Your task to perform on an android device: check battery use Image 0: 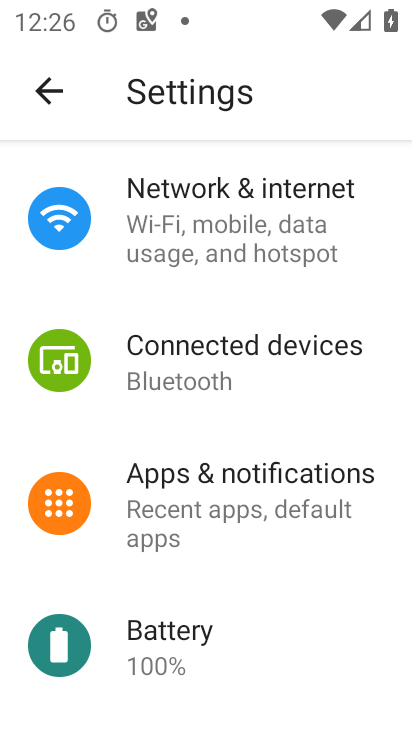
Step 0: click (179, 640)
Your task to perform on an android device: check battery use Image 1: 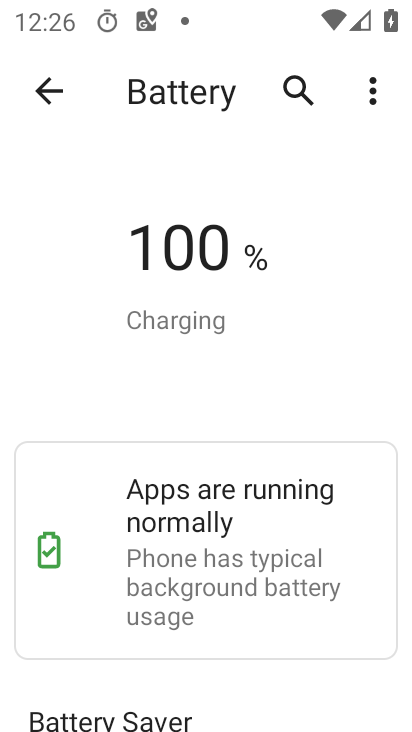
Step 1: click (360, 81)
Your task to perform on an android device: check battery use Image 2: 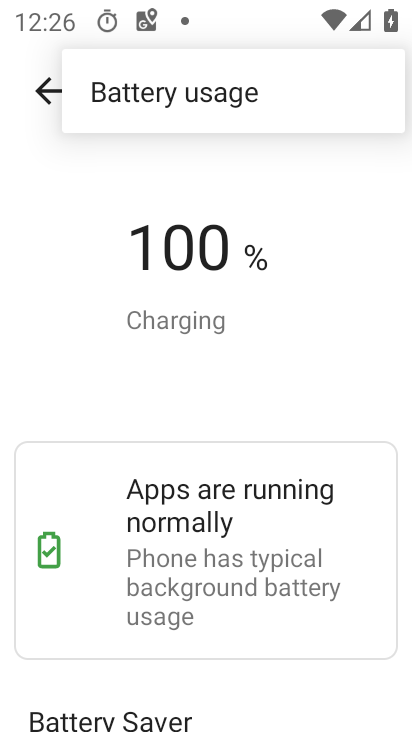
Step 2: click (270, 91)
Your task to perform on an android device: check battery use Image 3: 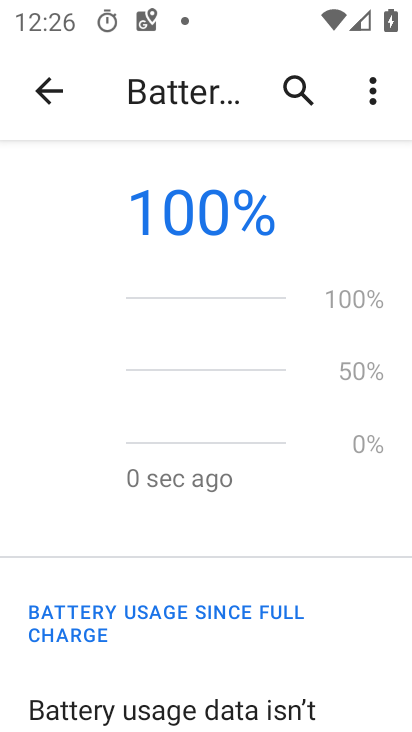
Step 3: click (360, 76)
Your task to perform on an android device: check battery use Image 4: 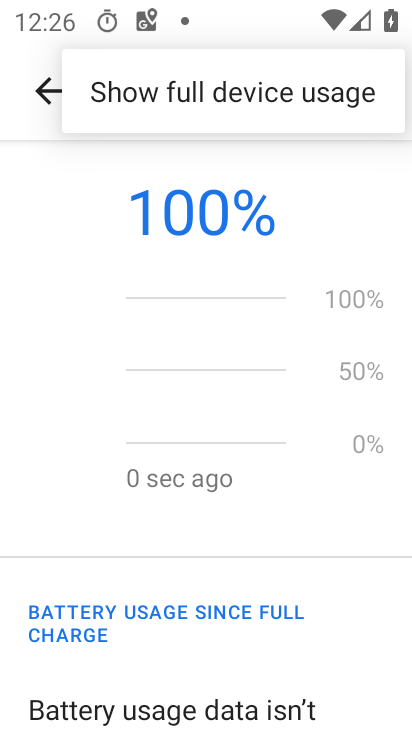
Step 4: click (302, 89)
Your task to perform on an android device: check battery use Image 5: 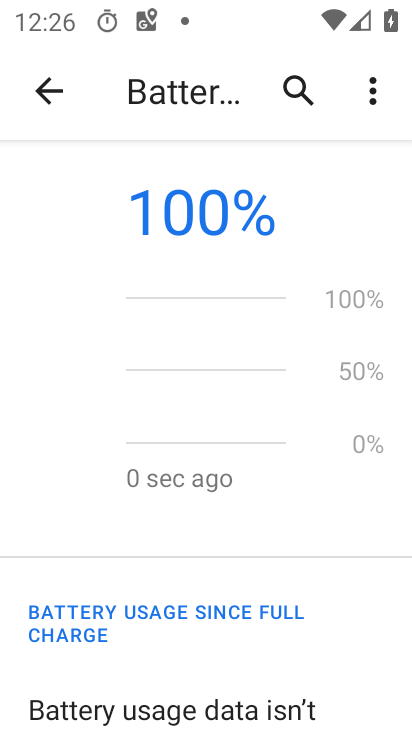
Step 5: click (358, 102)
Your task to perform on an android device: check battery use Image 6: 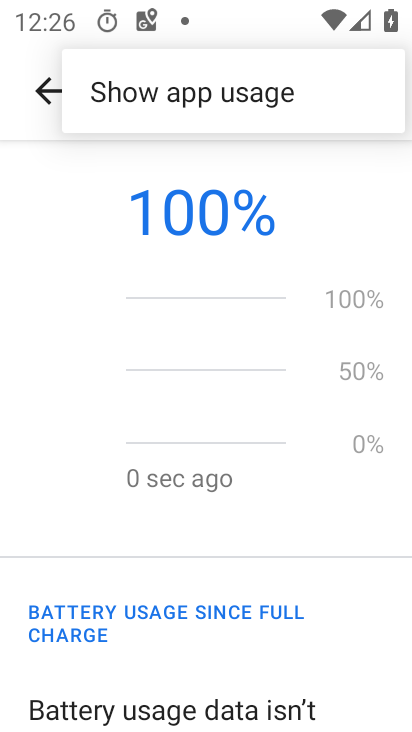
Step 6: click (325, 99)
Your task to perform on an android device: check battery use Image 7: 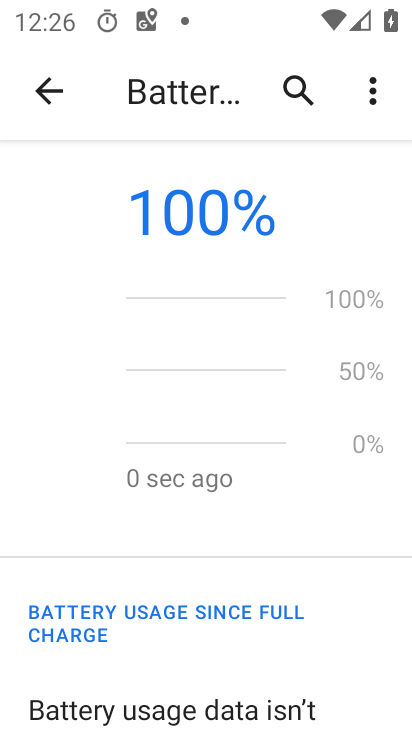
Step 7: task complete